Your task to perform on an android device: Open the stopwatch Image 0: 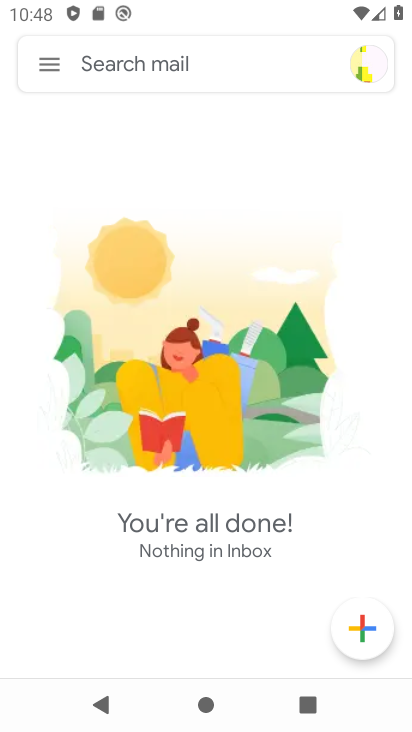
Step 0: press back button
Your task to perform on an android device: Open the stopwatch Image 1: 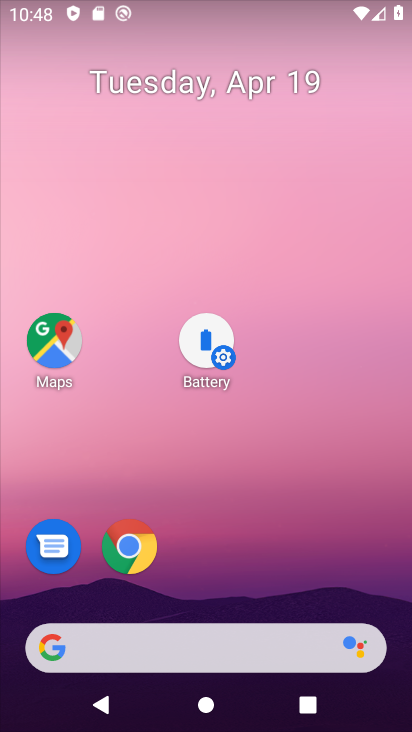
Step 1: drag from (272, 445) to (307, 14)
Your task to perform on an android device: Open the stopwatch Image 2: 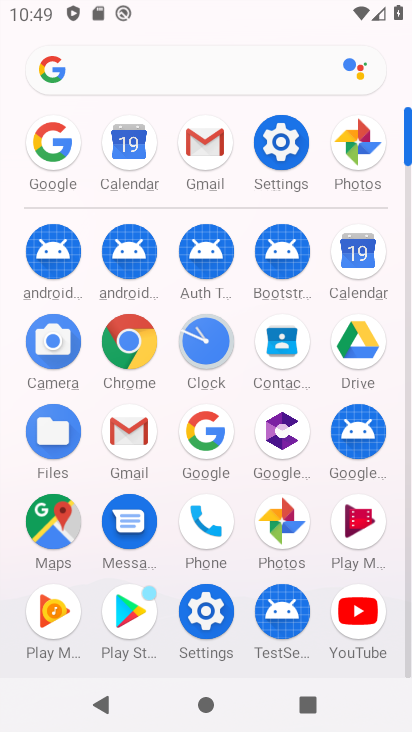
Step 2: click (208, 342)
Your task to perform on an android device: Open the stopwatch Image 3: 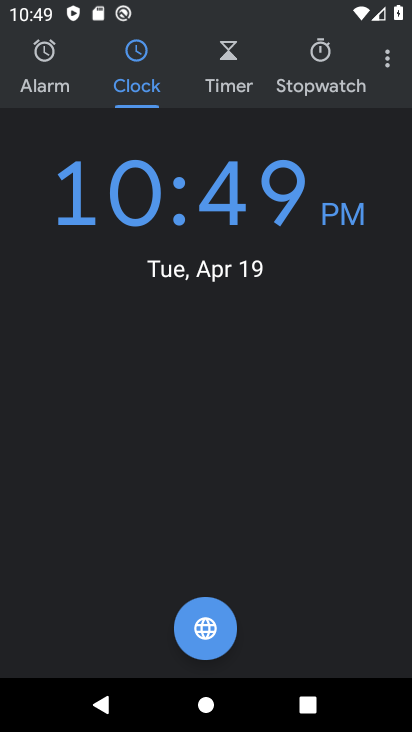
Step 3: click (319, 64)
Your task to perform on an android device: Open the stopwatch Image 4: 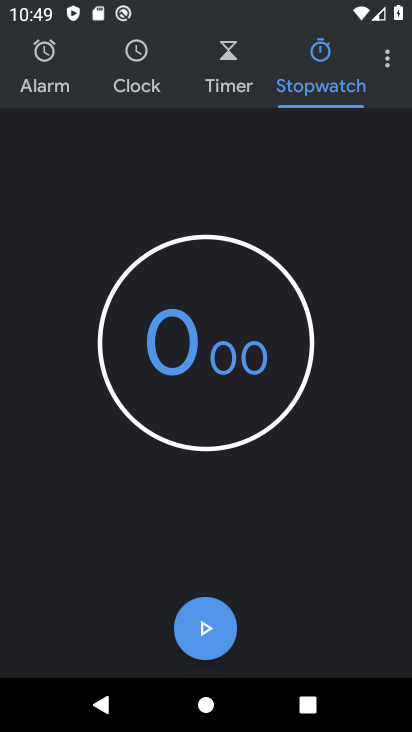
Step 4: task complete